Your task to perform on an android device: turn off improve location accuracy Image 0: 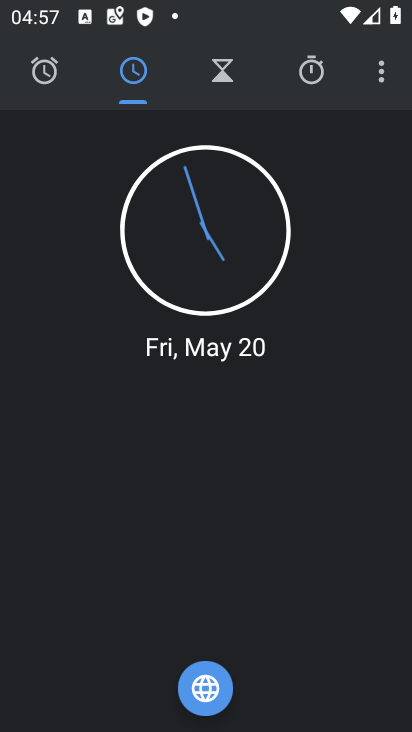
Step 0: press home button
Your task to perform on an android device: turn off improve location accuracy Image 1: 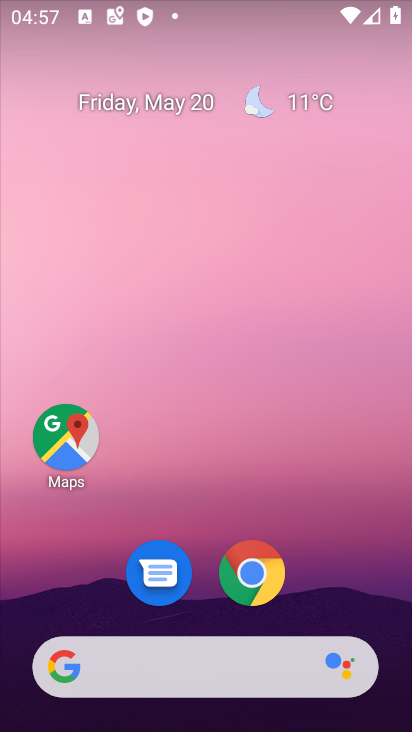
Step 1: drag from (406, 644) to (337, 48)
Your task to perform on an android device: turn off improve location accuracy Image 2: 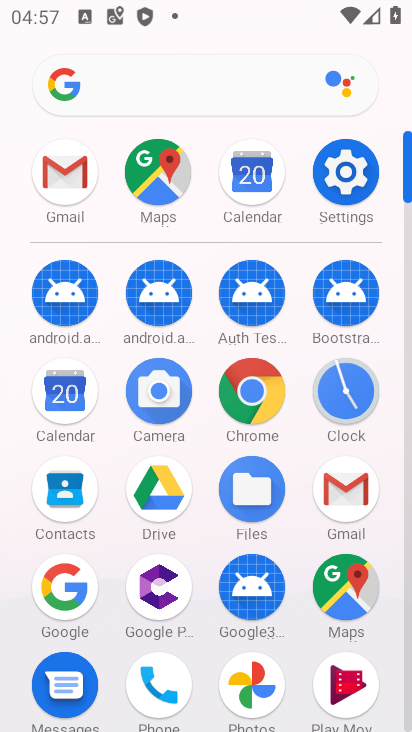
Step 2: click (408, 698)
Your task to perform on an android device: turn off improve location accuracy Image 3: 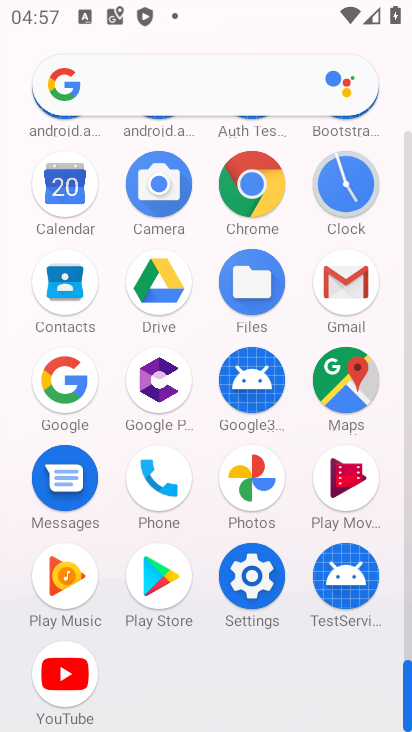
Step 3: click (253, 579)
Your task to perform on an android device: turn off improve location accuracy Image 4: 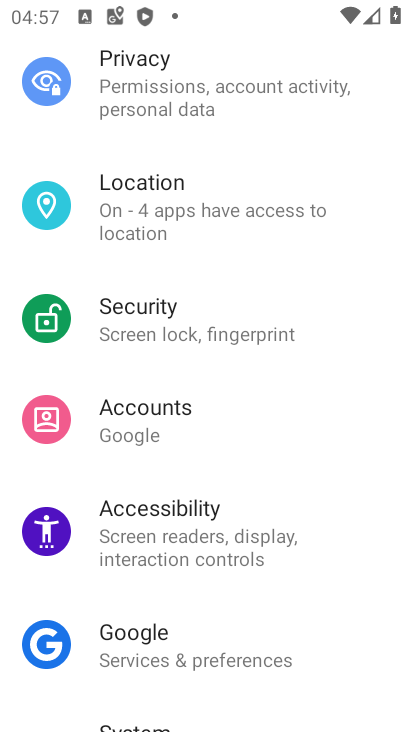
Step 4: click (162, 193)
Your task to perform on an android device: turn off improve location accuracy Image 5: 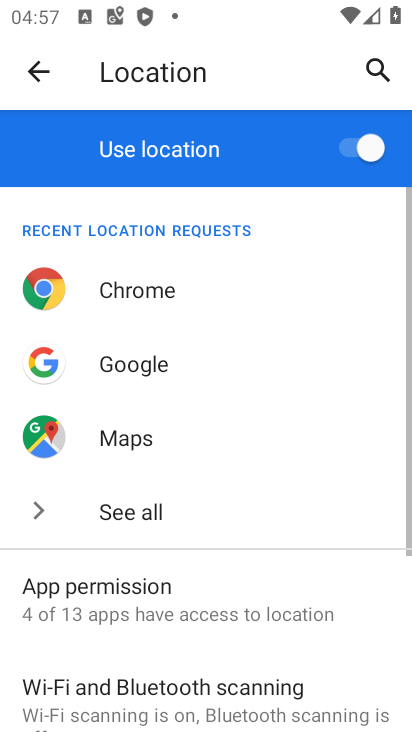
Step 5: drag from (214, 686) to (253, 227)
Your task to perform on an android device: turn off improve location accuracy Image 6: 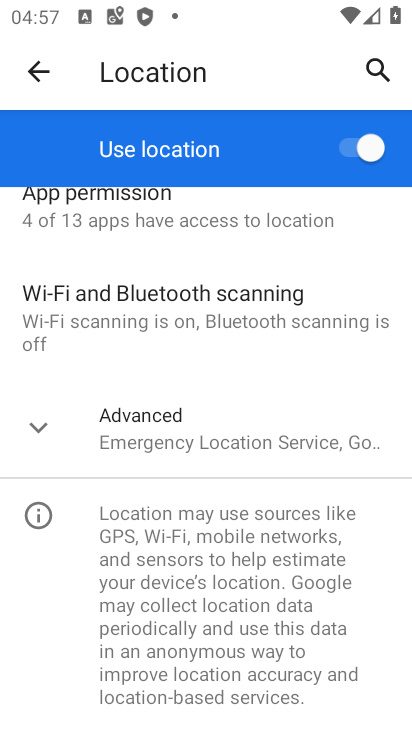
Step 6: click (34, 426)
Your task to perform on an android device: turn off improve location accuracy Image 7: 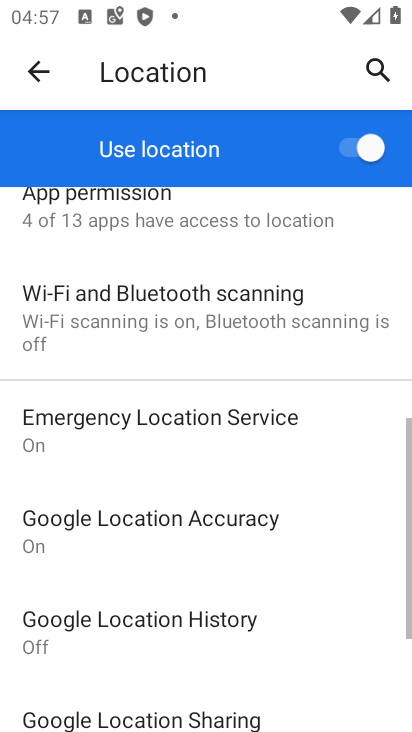
Step 7: drag from (307, 638) to (294, 273)
Your task to perform on an android device: turn off improve location accuracy Image 8: 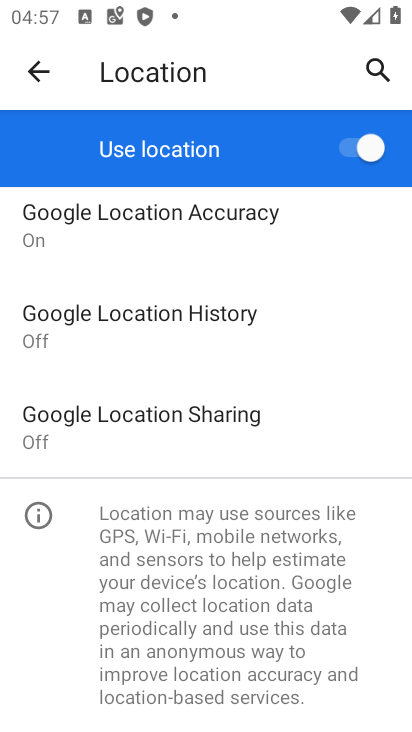
Step 8: click (138, 219)
Your task to perform on an android device: turn off improve location accuracy Image 9: 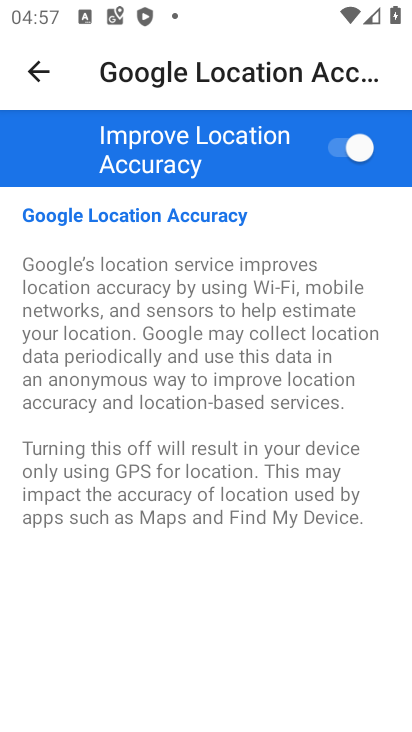
Step 9: click (335, 152)
Your task to perform on an android device: turn off improve location accuracy Image 10: 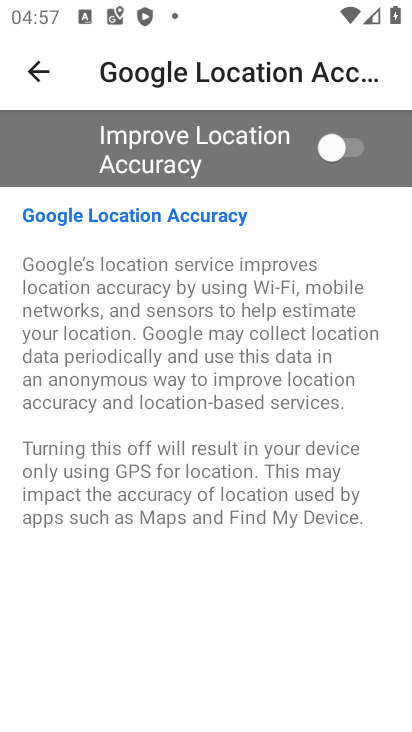
Step 10: task complete